Your task to perform on an android device: Open calendar and show me the first week of next month Image 0: 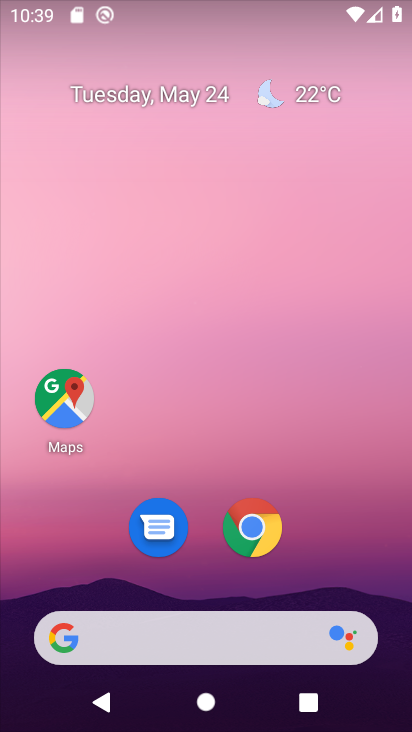
Step 0: drag from (192, 643) to (350, 37)
Your task to perform on an android device: Open calendar and show me the first week of next month Image 1: 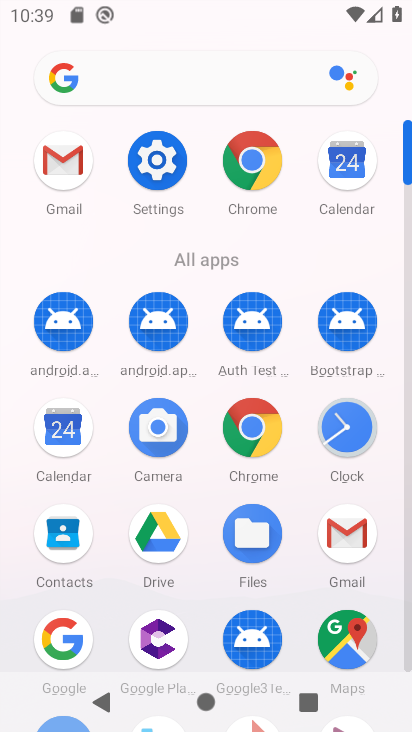
Step 1: click (64, 432)
Your task to perform on an android device: Open calendar and show me the first week of next month Image 2: 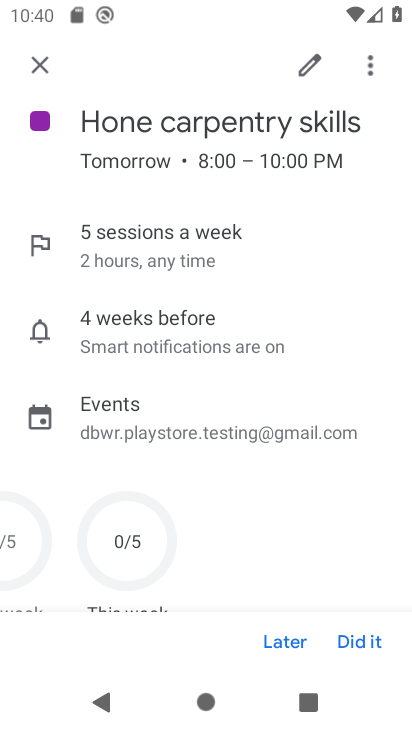
Step 2: click (47, 71)
Your task to perform on an android device: Open calendar and show me the first week of next month Image 3: 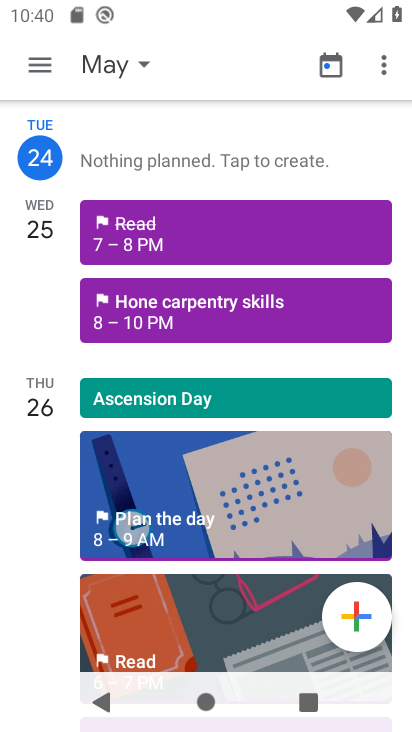
Step 3: click (115, 69)
Your task to perform on an android device: Open calendar and show me the first week of next month Image 4: 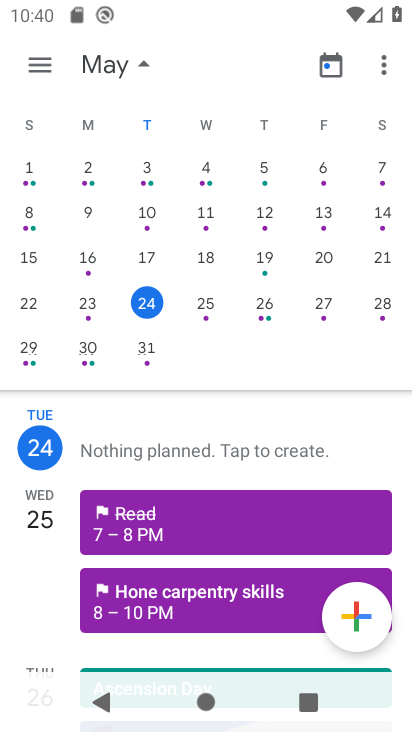
Step 4: drag from (364, 208) to (15, 214)
Your task to perform on an android device: Open calendar and show me the first week of next month Image 5: 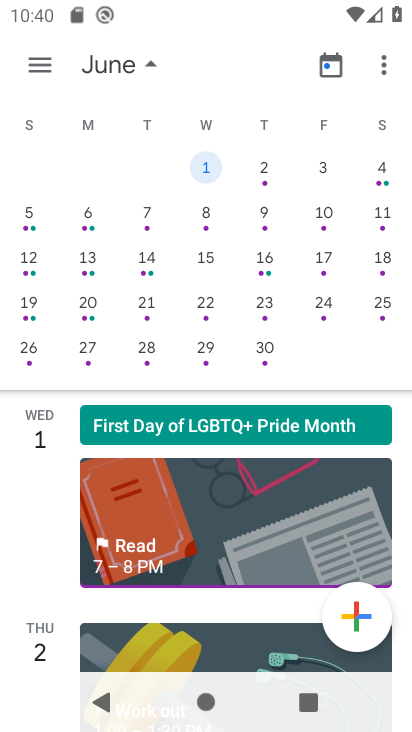
Step 5: click (208, 169)
Your task to perform on an android device: Open calendar and show me the first week of next month Image 6: 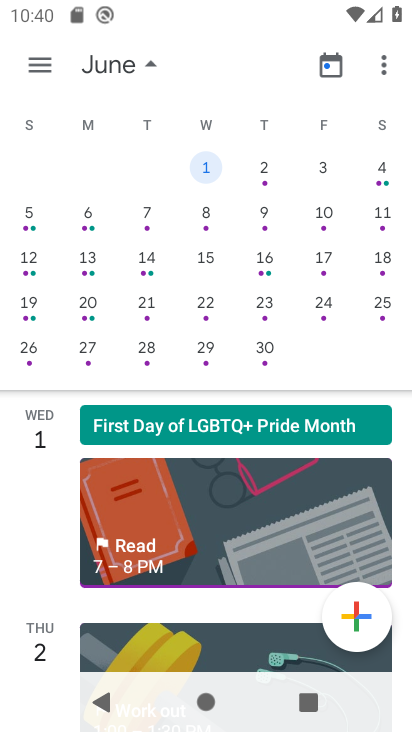
Step 6: click (41, 72)
Your task to perform on an android device: Open calendar and show me the first week of next month Image 7: 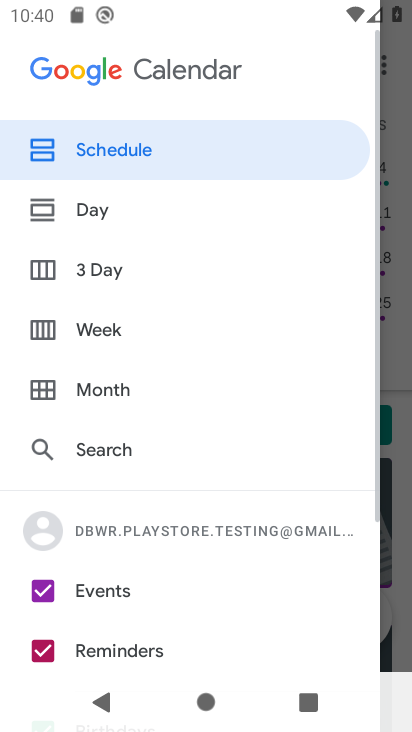
Step 7: click (94, 328)
Your task to perform on an android device: Open calendar and show me the first week of next month Image 8: 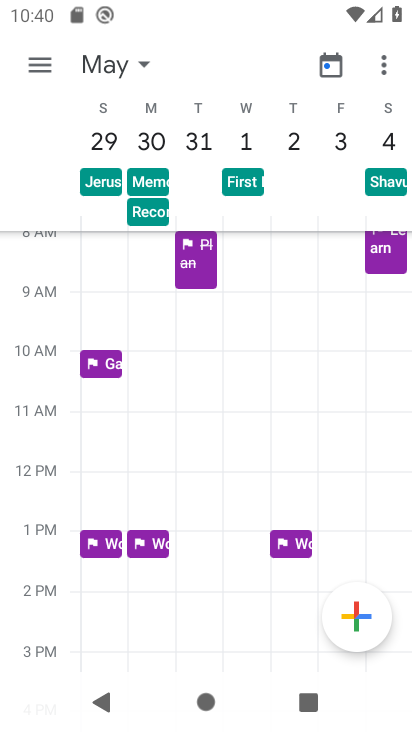
Step 8: task complete